Your task to perform on an android device: Open the map Image 0: 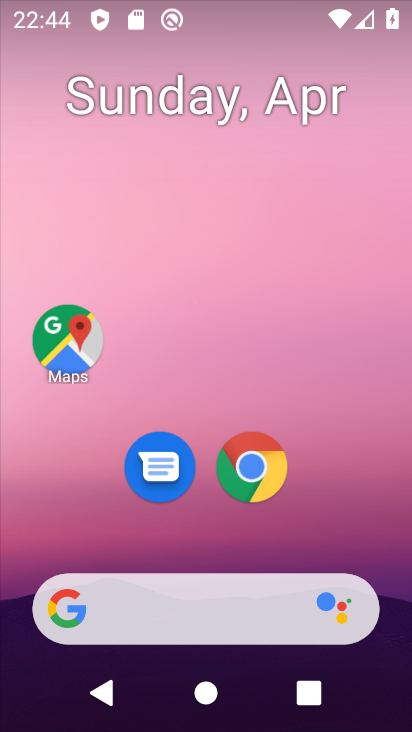
Step 0: click (66, 347)
Your task to perform on an android device: Open the map Image 1: 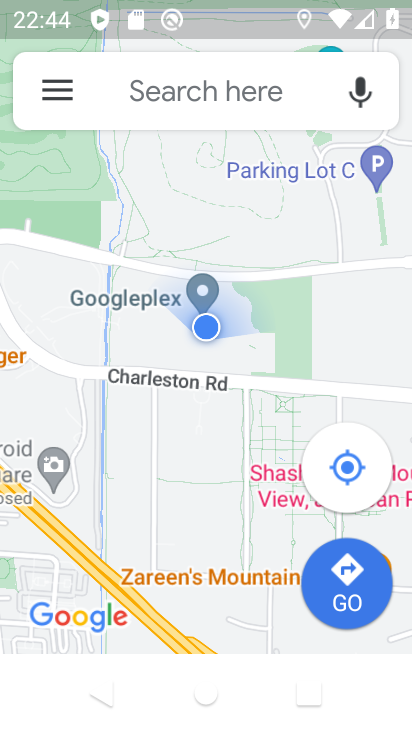
Step 1: task complete